Your task to perform on an android device: turn off airplane mode Image 0: 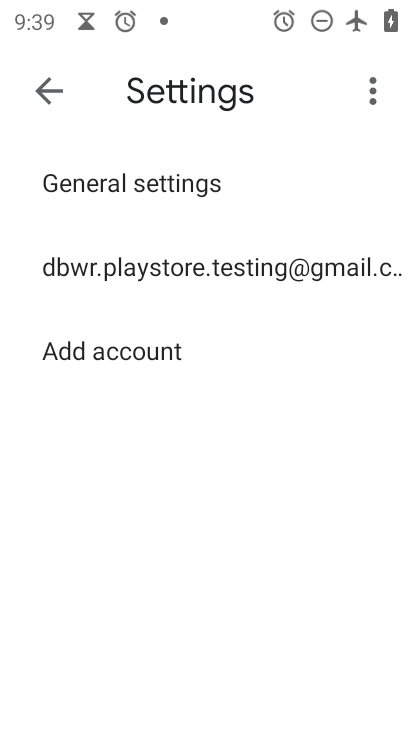
Step 0: press back button
Your task to perform on an android device: turn off airplane mode Image 1: 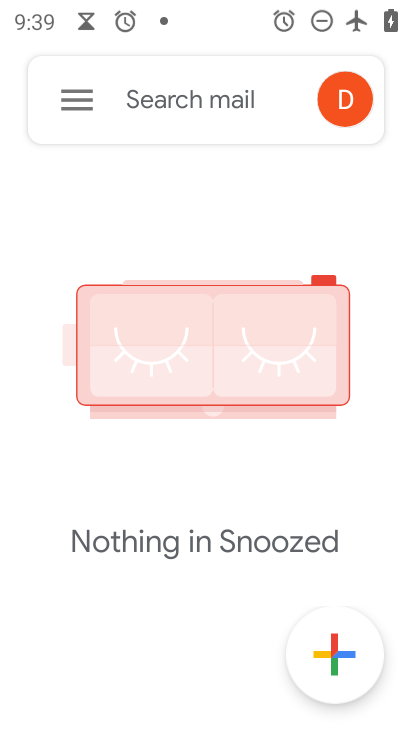
Step 1: press back button
Your task to perform on an android device: turn off airplane mode Image 2: 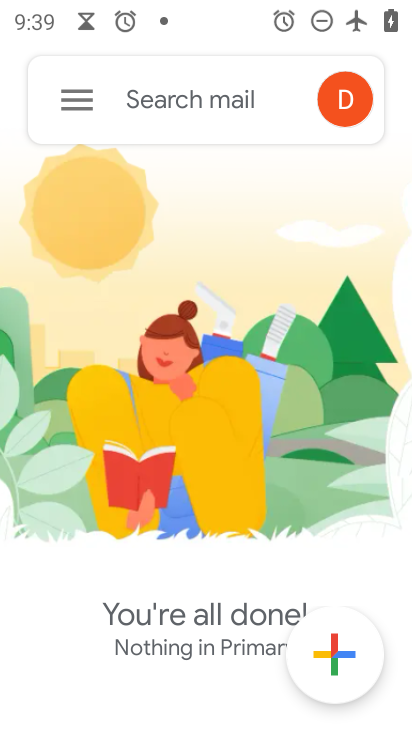
Step 2: press home button
Your task to perform on an android device: turn off airplane mode Image 3: 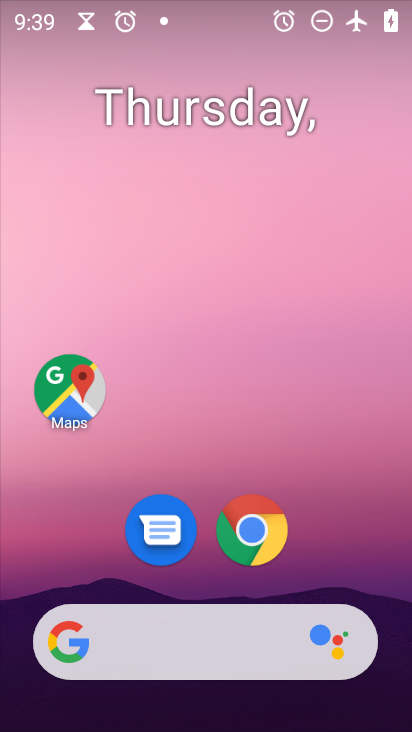
Step 3: drag from (341, 552) to (247, 26)
Your task to perform on an android device: turn off airplane mode Image 4: 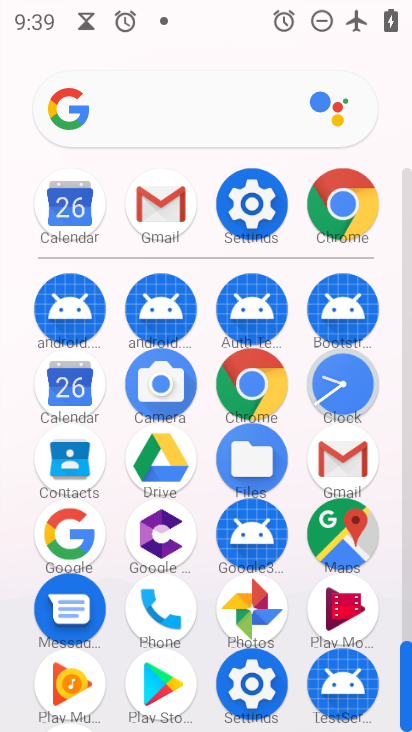
Step 4: click (249, 679)
Your task to perform on an android device: turn off airplane mode Image 5: 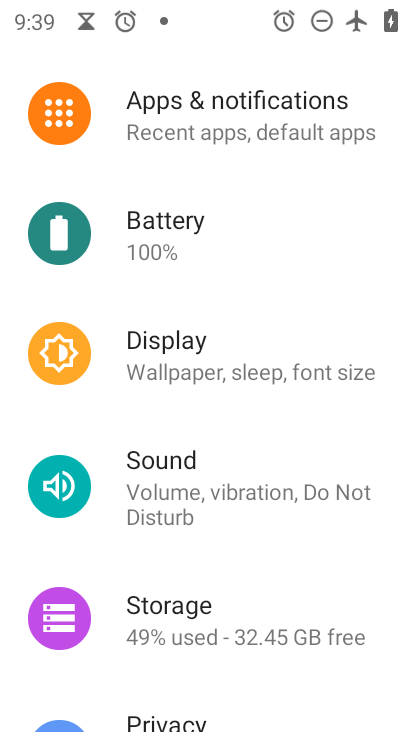
Step 5: drag from (293, 193) to (291, 616)
Your task to perform on an android device: turn off airplane mode Image 6: 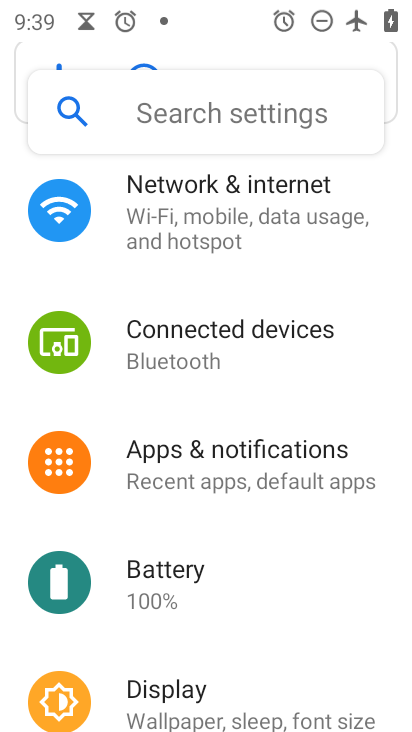
Step 6: click (275, 204)
Your task to perform on an android device: turn off airplane mode Image 7: 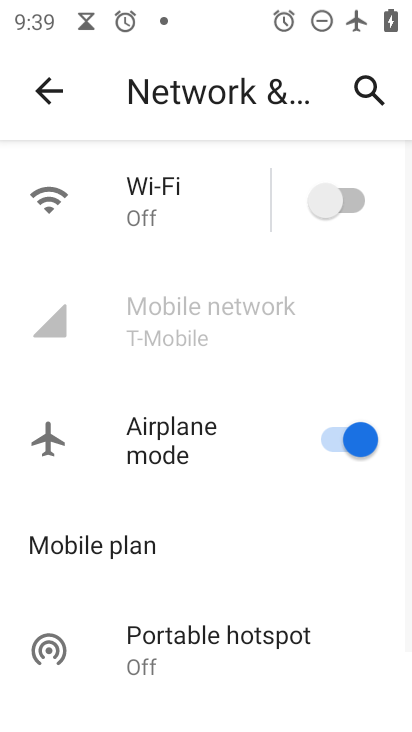
Step 7: drag from (220, 616) to (216, 183)
Your task to perform on an android device: turn off airplane mode Image 8: 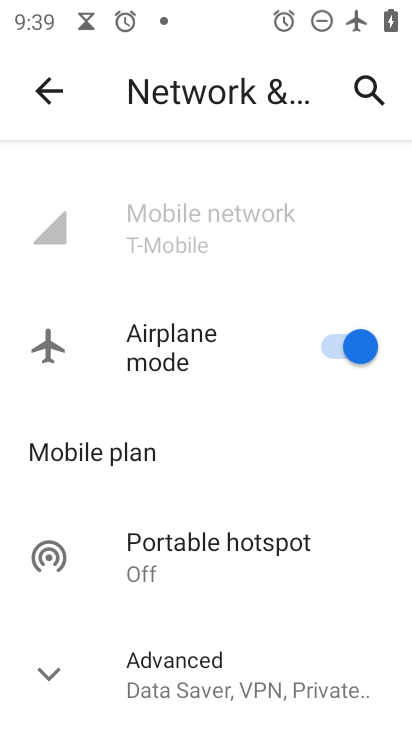
Step 8: click (83, 693)
Your task to perform on an android device: turn off airplane mode Image 9: 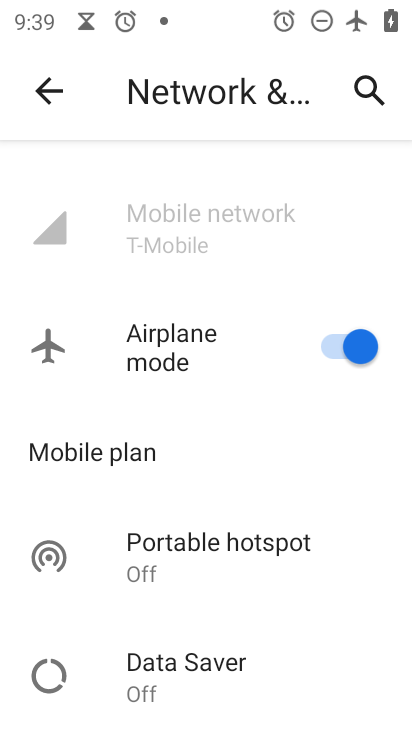
Step 9: click (330, 350)
Your task to perform on an android device: turn off airplane mode Image 10: 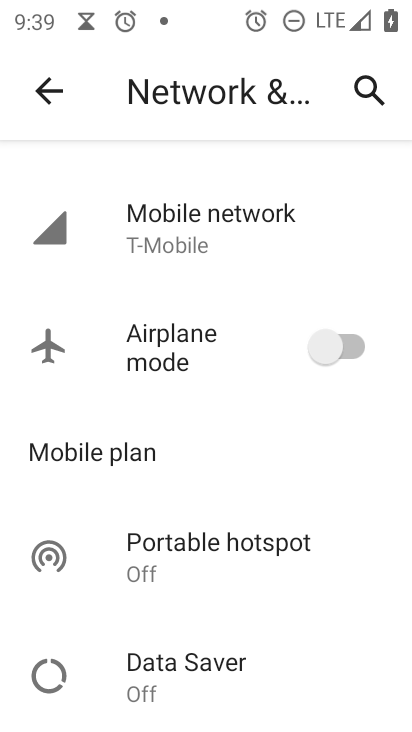
Step 10: task complete